Your task to perform on an android device: What is the news today? Image 0: 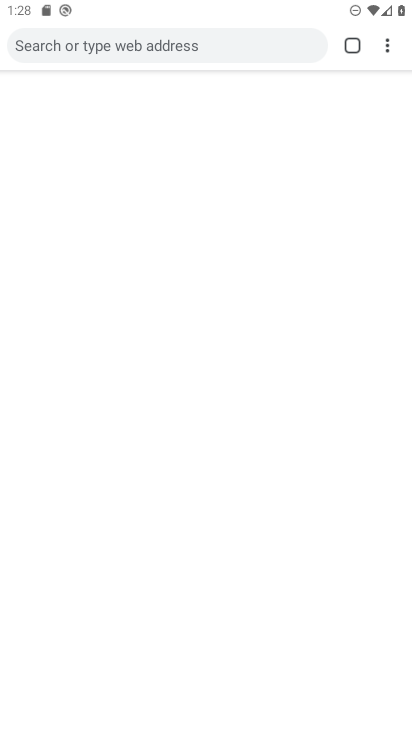
Step 0: click (366, 481)
Your task to perform on an android device: What is the news today? Image 1: 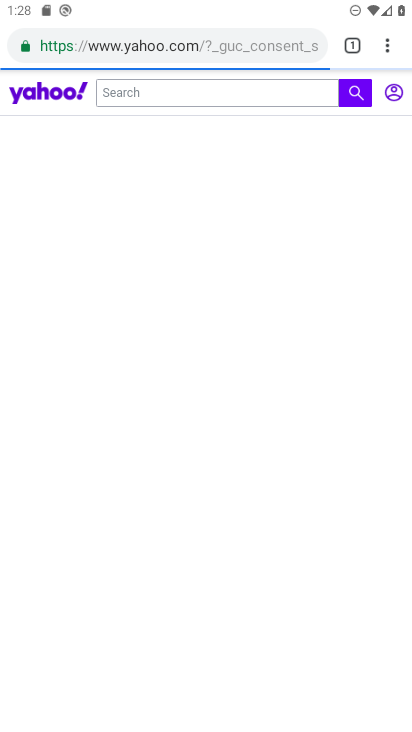
Step 1: task complete